Your task to perform on an android device: Open the Play Movies app and select the watchlist tab. Image 0: 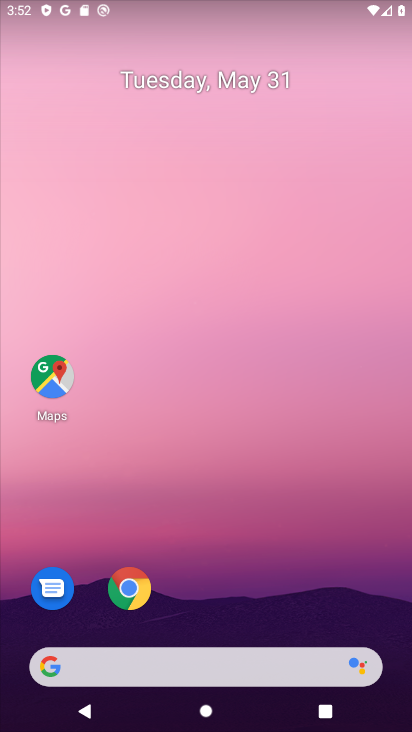
Step 0: drag from (185, 640) to (181, 185)
Your task to perform on an android device: Open the Play Movies app and select the watchlist tab. Image 1: 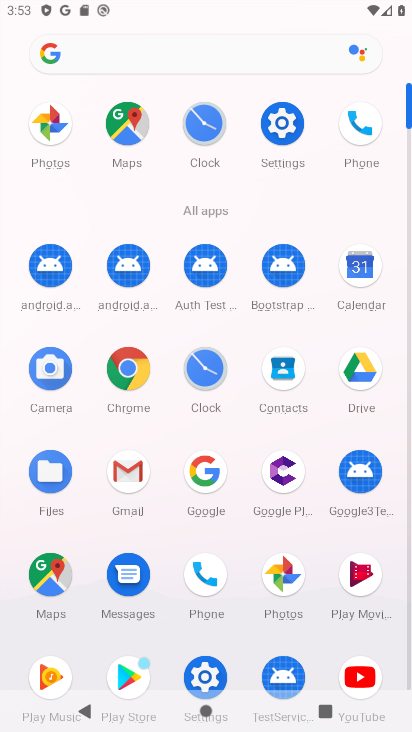
Step 1: click (334, 625)
Your task to perform on an android device: Open the Play Movies app and select the watchlist tab. Image 2: 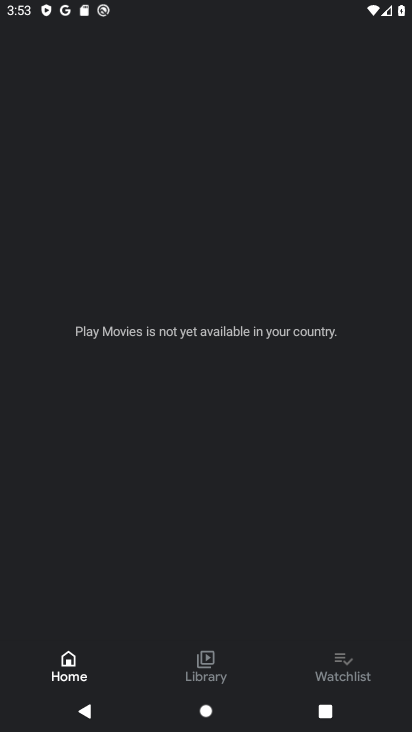
Step 2: click (347, 640)
Your task to perform on an android device: Open the Play Movies app and select the watchlist tab. Image 3: 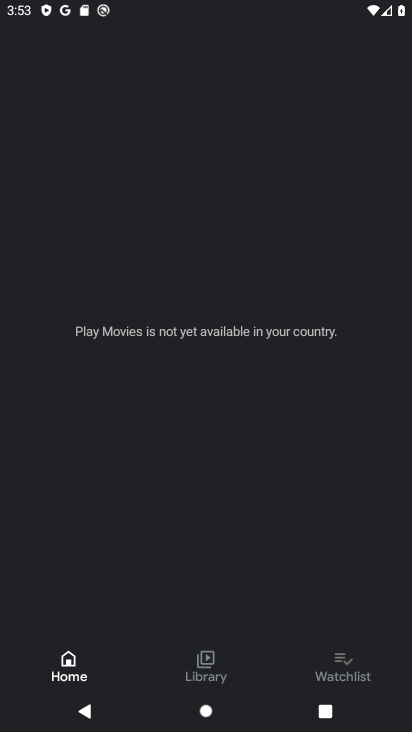
Step 3: click (346, 652)
Your task to perform on an android device: Open the Play Movies app and select the watchlist tab. Image 4: 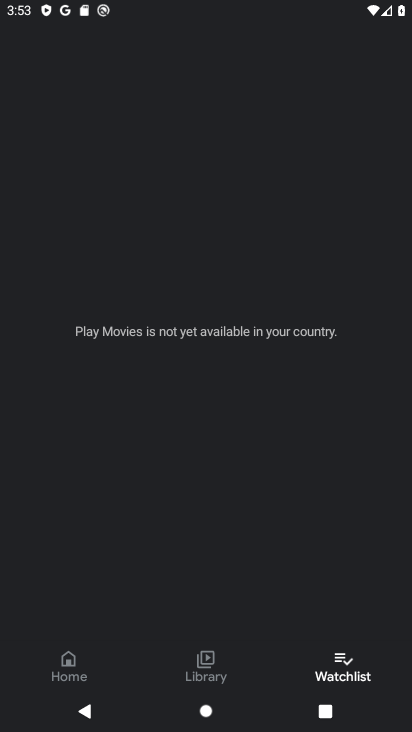
Step 4: click (346, 652)
Your task to perform on an android device: Open the Play Movies app and select the watchlist tab. Image 5: 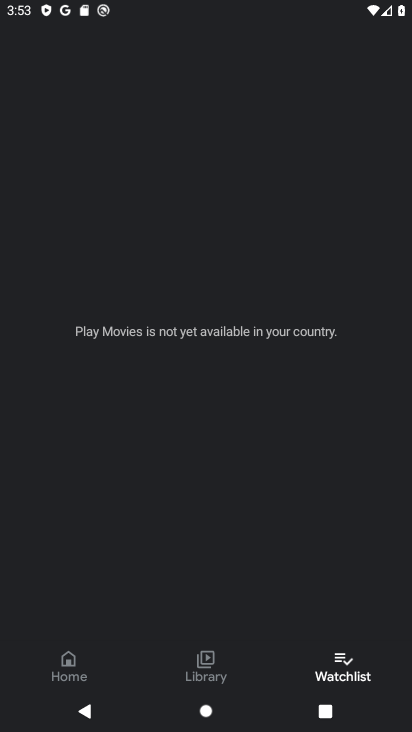
Step 5: task complete